Your task to perform on an android device: turn off priority inbox in the gmail app Image 0: 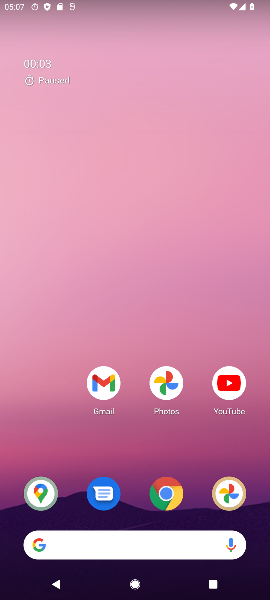
Step 0: drag from (38, 548) to (189, 61)
Your task to perform on an android device: turn off priority inbox in the gmail app Image 1: 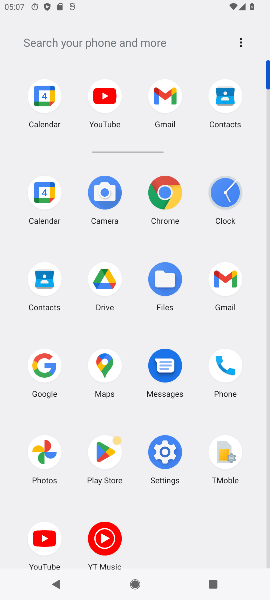
Step 1: click (234, 278)
Your task to perform on an android device: turn off priority inbox in the gmail app Image 2: 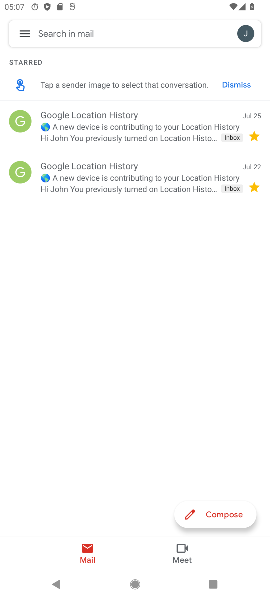
Step 2: click (21, 35)
Your task to perform on an android device: turn off priority inbox in the gmail app Image 3: 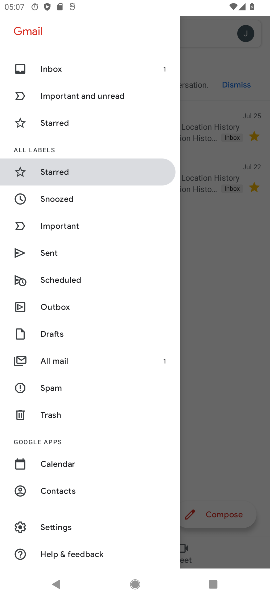
Step 3: click (63, 531)
Your task to perform on an android device: turn off priority inbox in the gmail app Image 4: 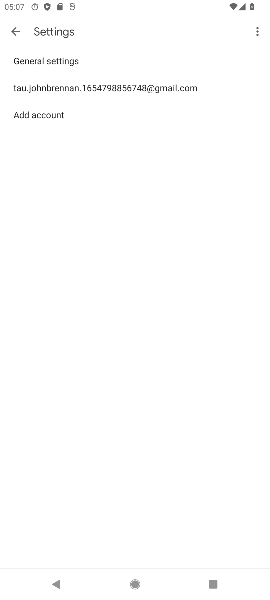
Step 4: click (66, 84)
Your task to perform on an android device: turn off priority inbox in the gmail app Image 5: 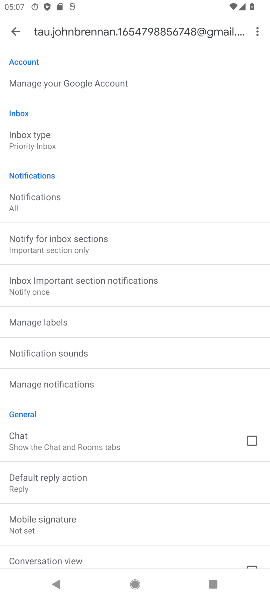
Step 5: task complete